Your task to perform on an android device: Is it going to rain tomorrow? Image 0: 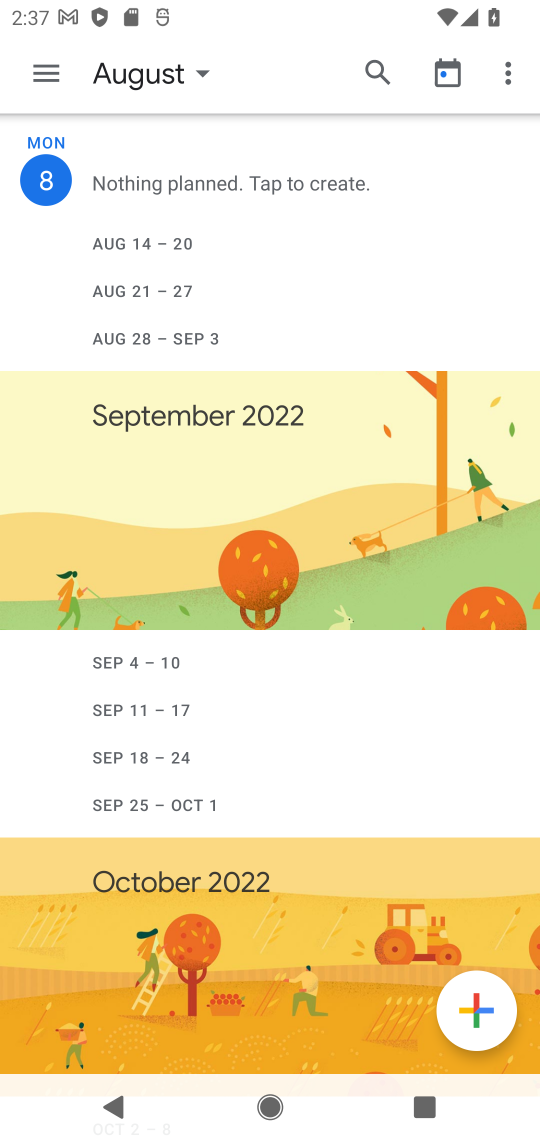
Step 0: press home button
Your task to perform on an android device: Is it going to rain tomorrow? Image 1: 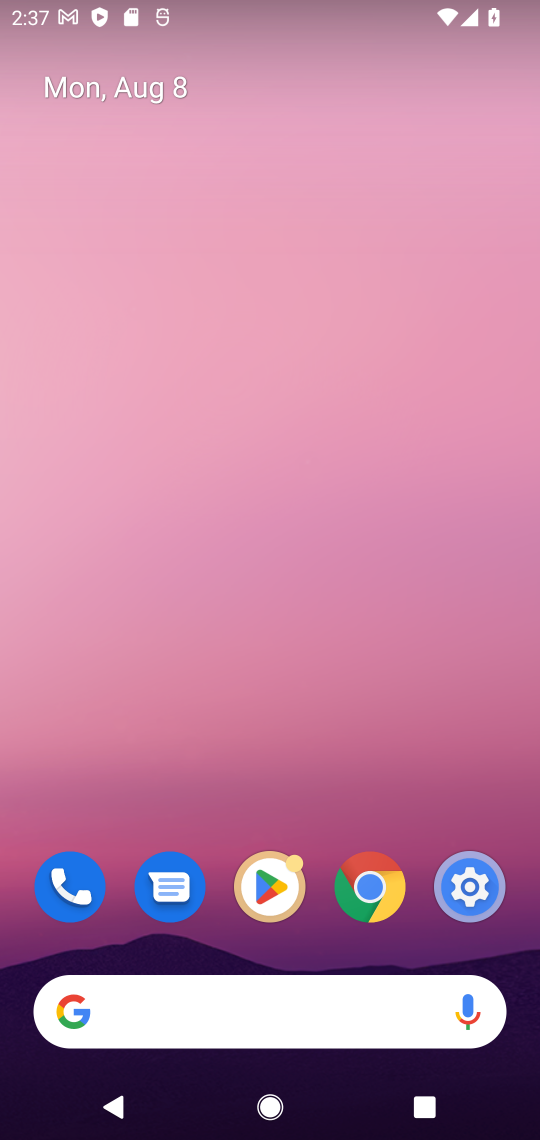
Step 1: drag from (247, 985) to (79, 279)
Your task to perform on an android device: Is it going to rain tomorrow? Image 2: 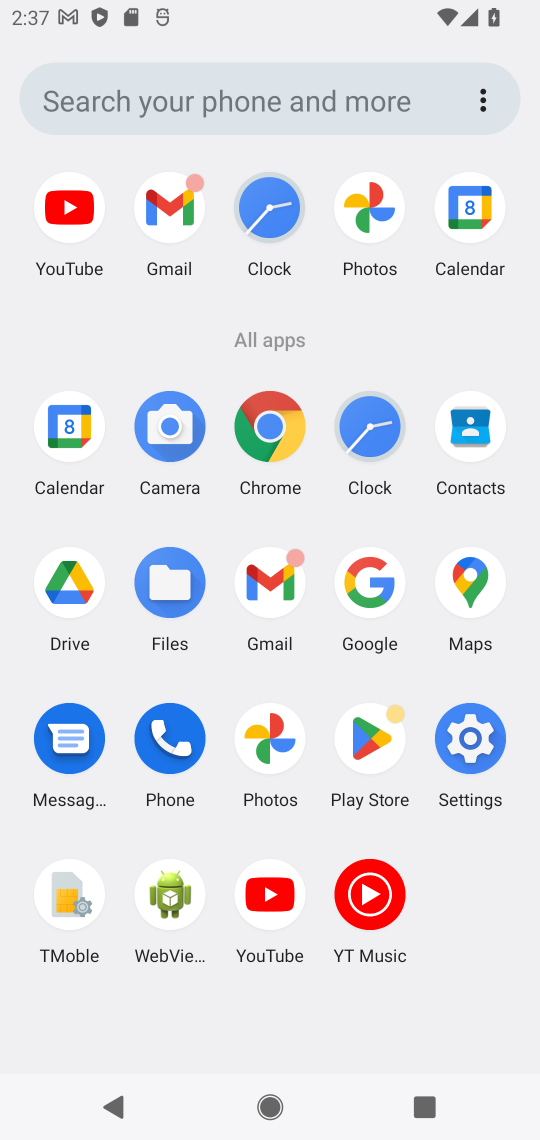
Step 2: click (374, 565)
Your task to perform on an android device: Is it going to rain tomorrow? Image 3: 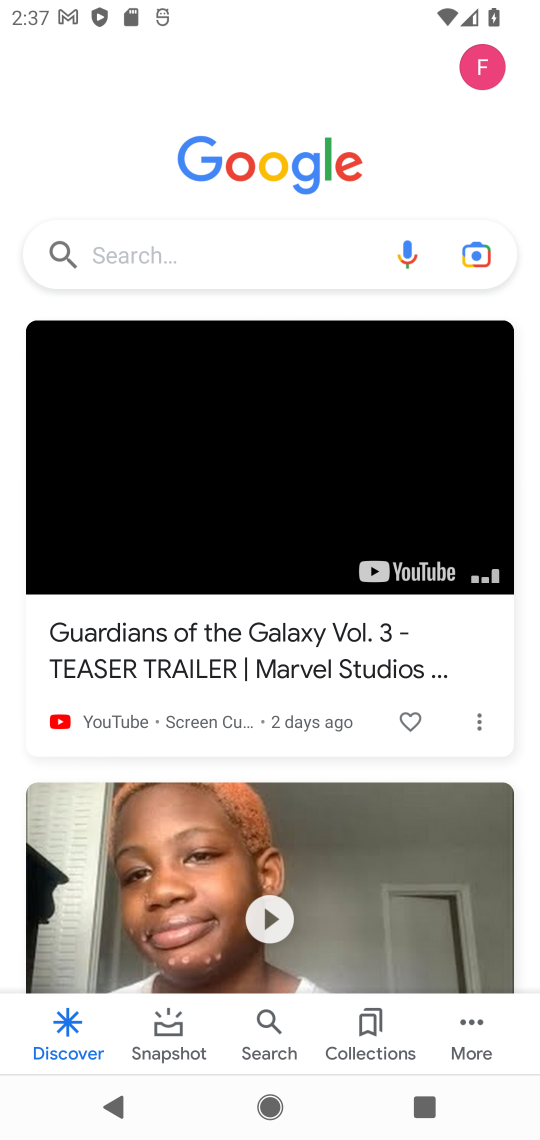
Step 3: click (159, 270)
Your task to perform on an android device: Is it going to rain tomorrow? Image 4: 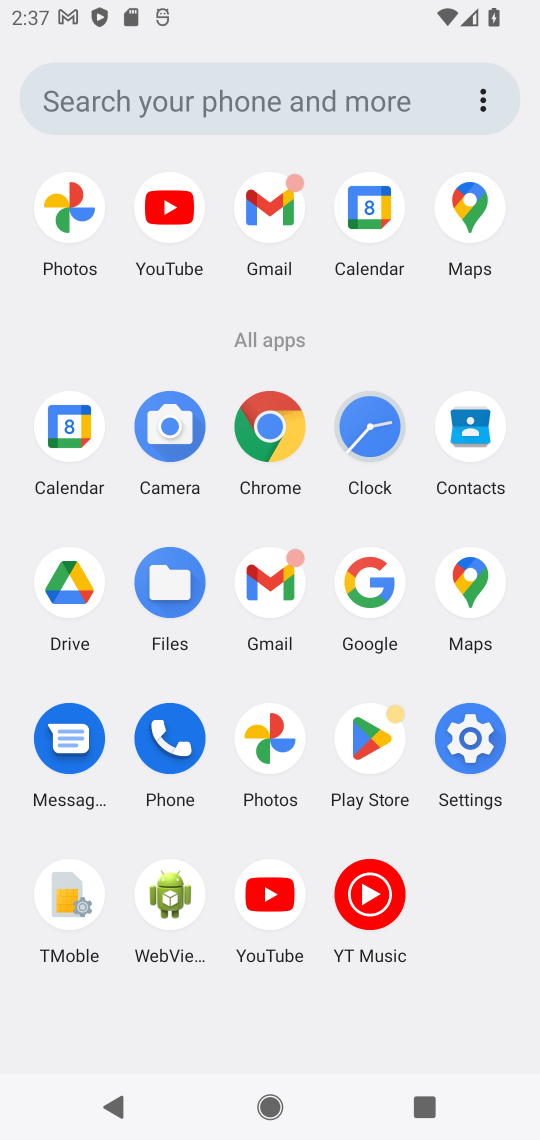
Step 4: click (375, 592)
Your task to perform on an android device: Is it going to rain tomorrow? Image 5: 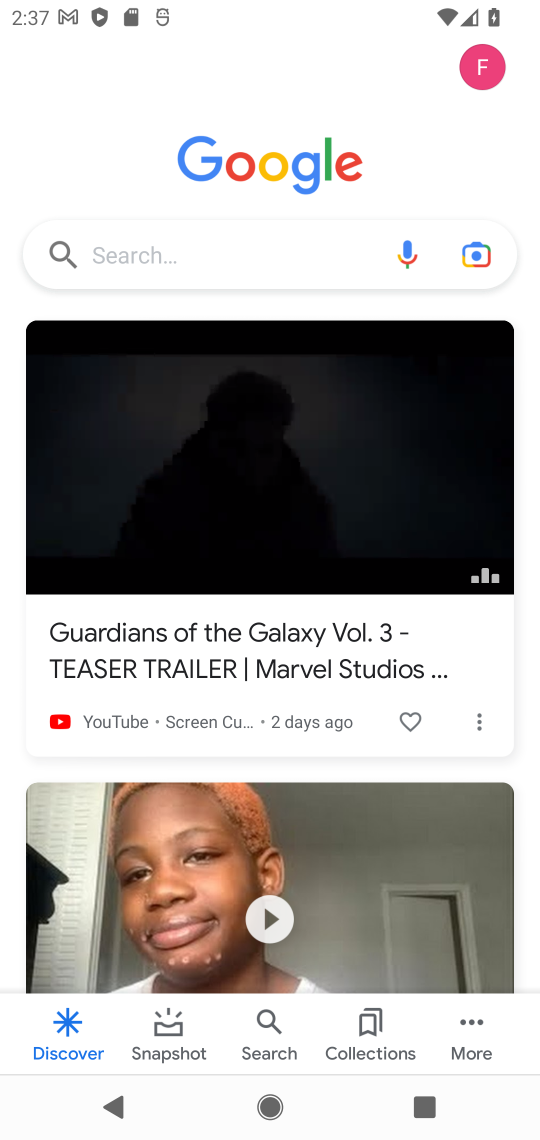
Step 5: click (143, 266)
Your task to perform on an android device: Is it going to rain tomorrow? Image 6: 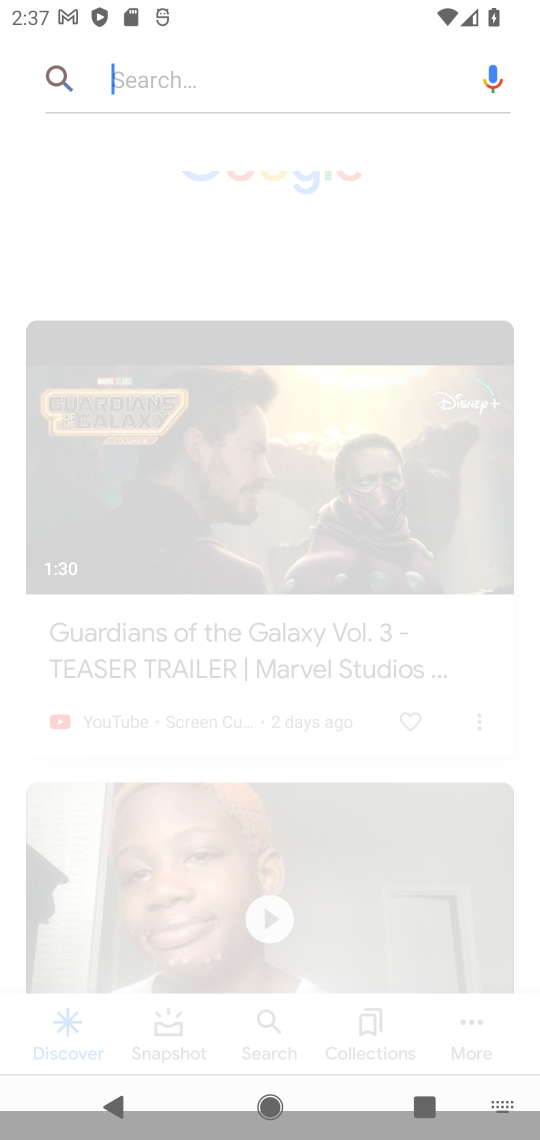
Step 6: click (134, 242)
Your task to perform on an android device: Is it going to rain tomorrow? Image 7: 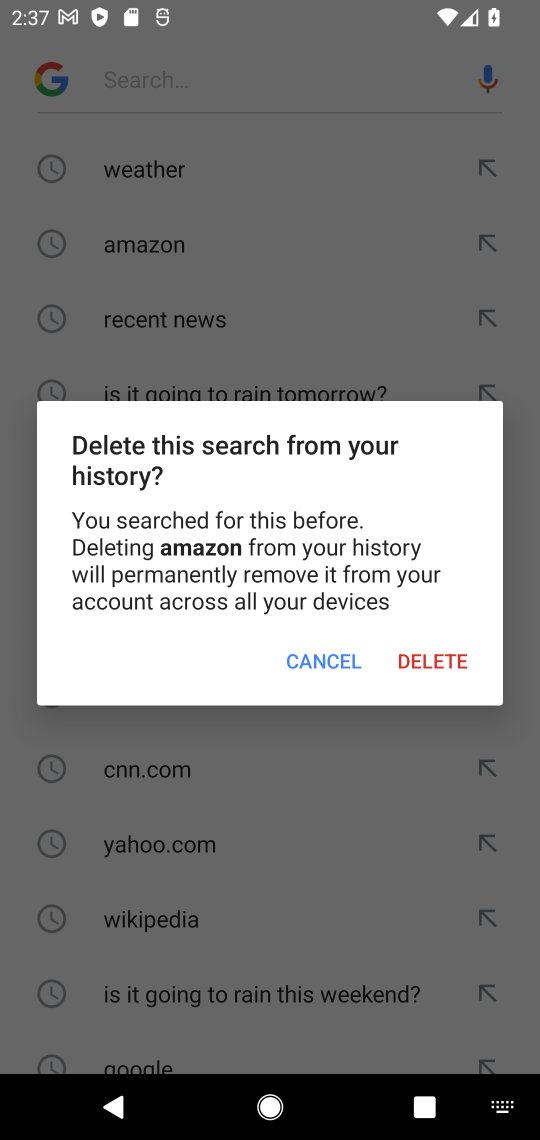
Step 7: click (336, 659)
Your task to perform on an android device: Is it going to rain tomorrow? Image 8: 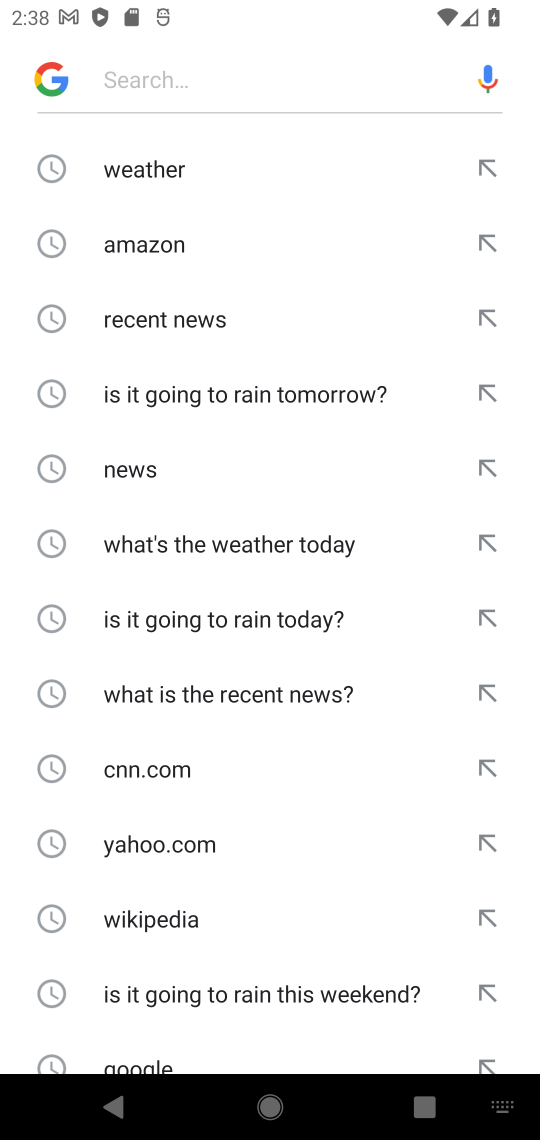
Step 8: click (219, 400)
Your task to perform on an android device: Is it going to rain tomorrow? Image 9: 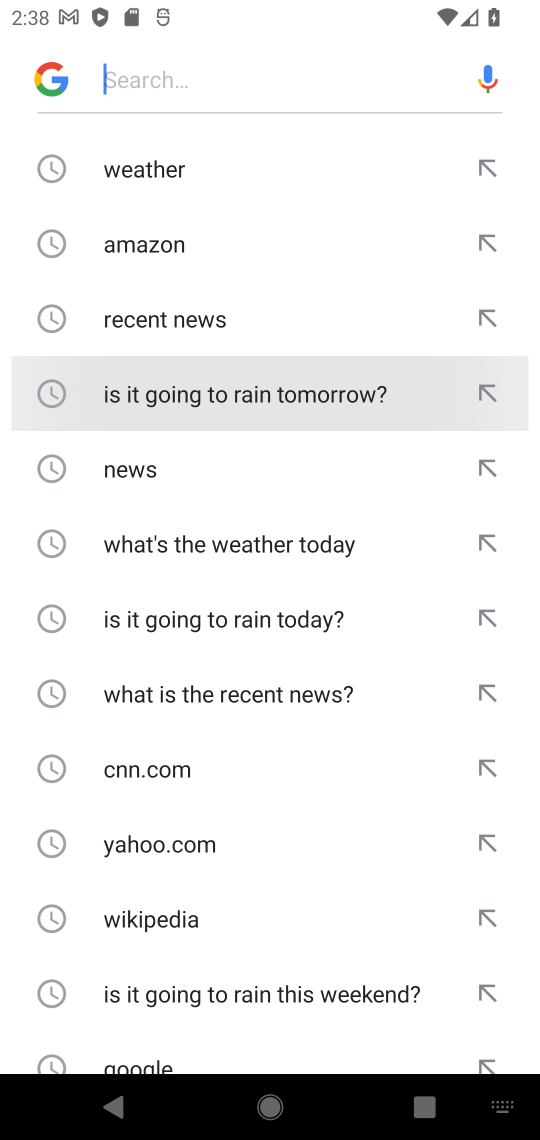
Step 9: click (234, 384)
Your task to perform on an android device: Is it going to rain tomorrow? Image 10: 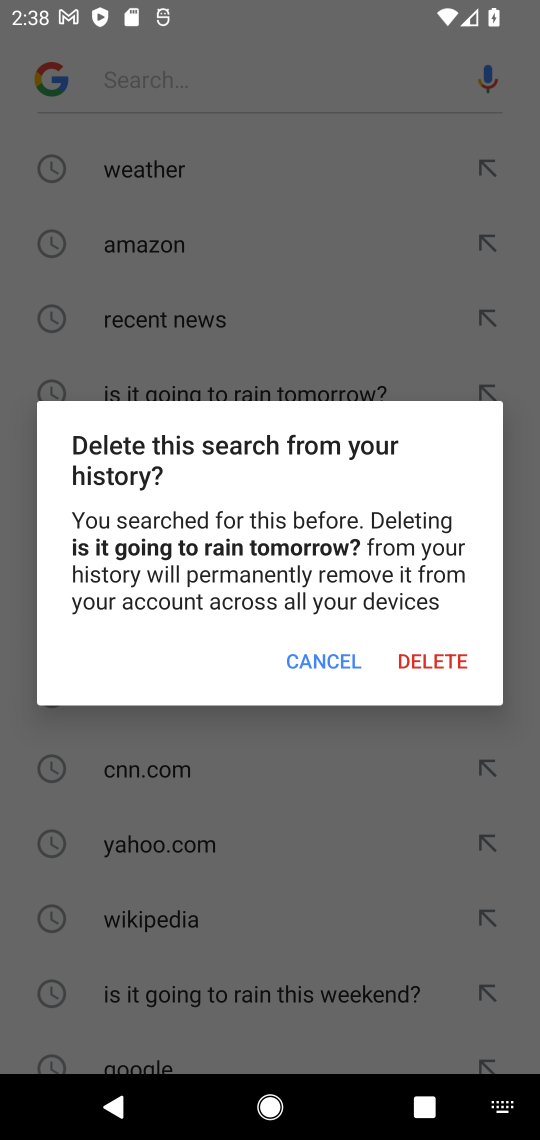
Step 10: click (321, 643)
Your task to perform on an android device: Is it going to rain tomorrow? Image 11: 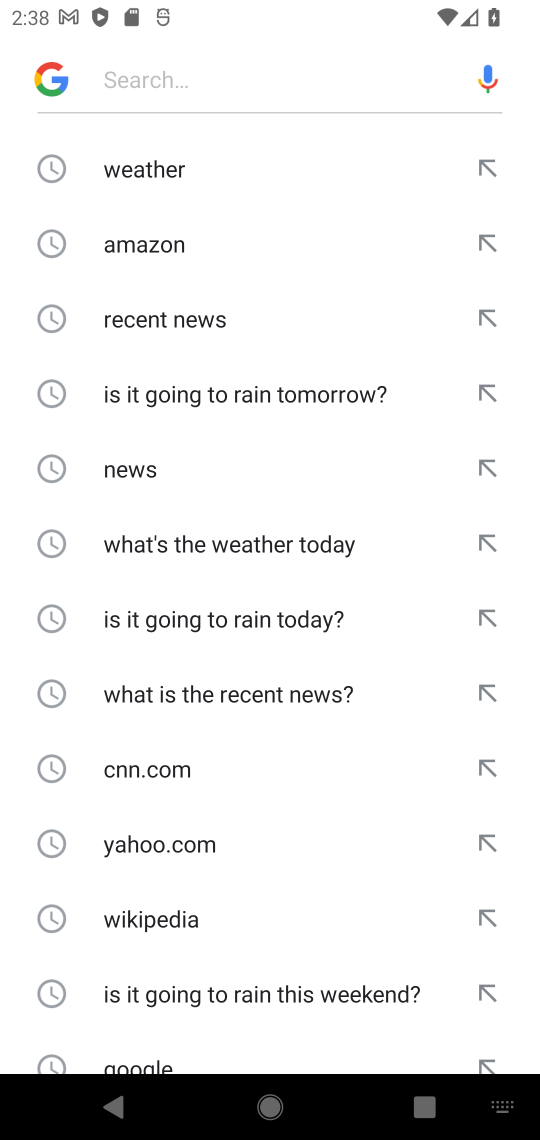
Step 11: click (224, 398)
Your task to perform on an android device: Is it going to rain tomorrow? Image 12: 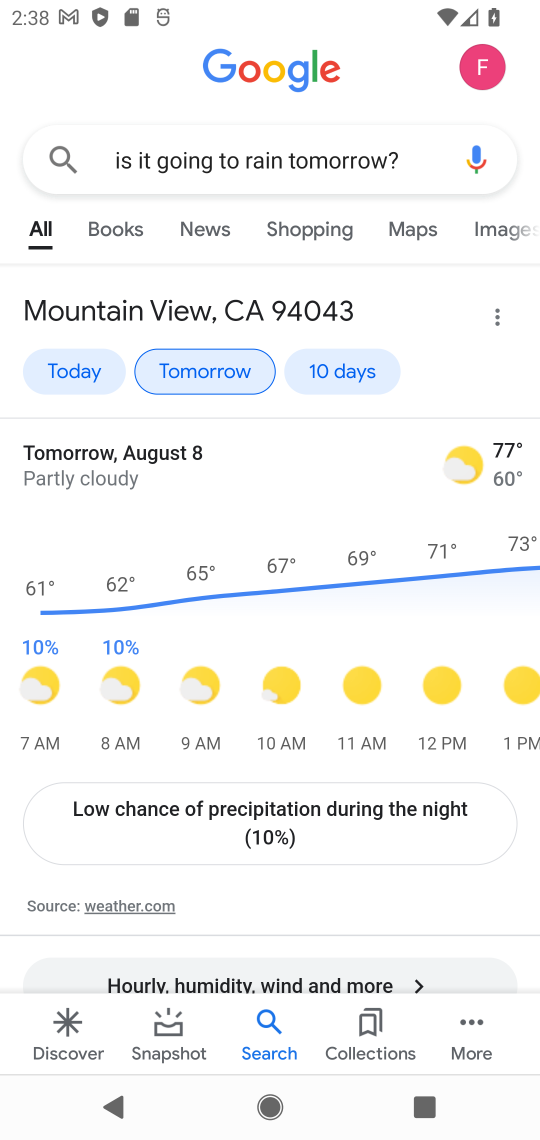
Step 12: task complete